Your task to perform on an android device: Open Chrome and go to settings Image 0: 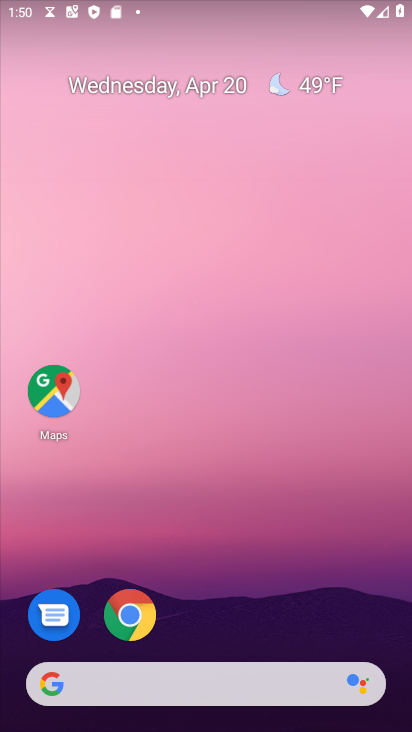
Step 0: click (134, 615)
Your task to perform on an android device: Open Chrome and go to settings Image 1: 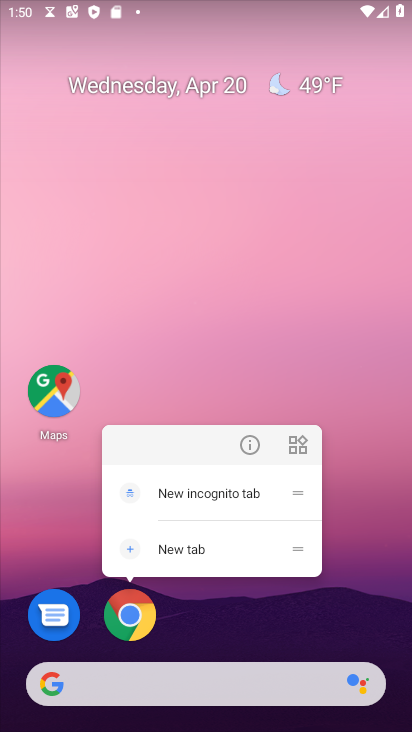
Step 1: click (117, 623)
Your task to perform on an android device: Open Chrome and go to settings Image 2: 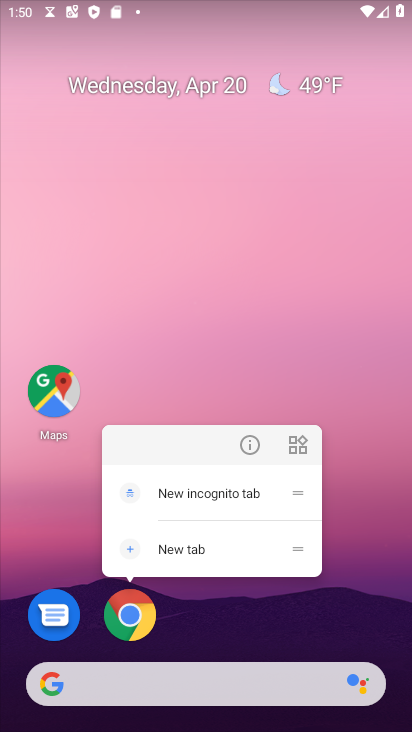
Step 2: click (119, 611)
Your task to perform on an android device: Open Chrome and go to settings Image 3: 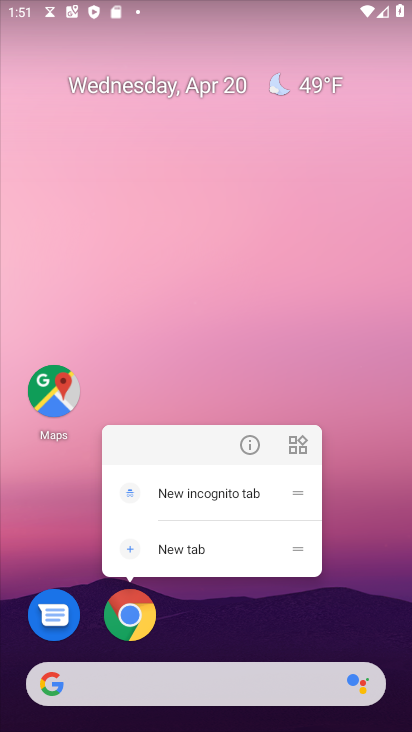
Step 3: click (118, 613)
Your task to perform on an android device: Open Chrome and go to settings Image 4: 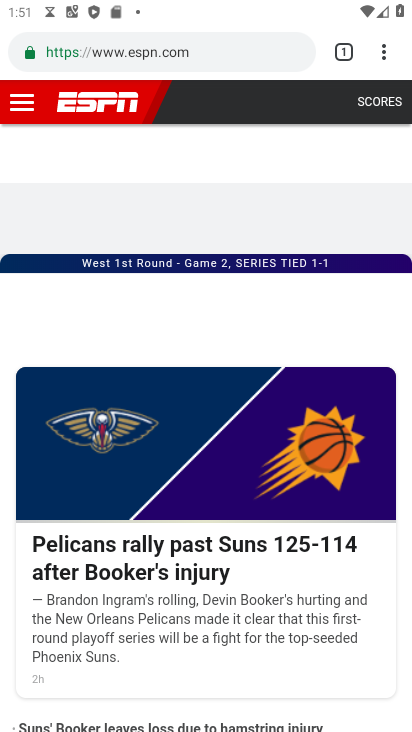
Step 4: click (385, 53)
Your task to perform on an android device: Open Chrome and go to settings Image 5: 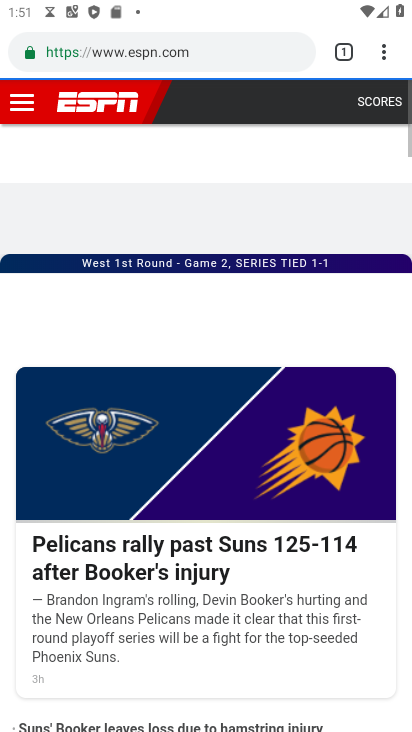
Step 5: click (385, 53)
Your task to perform on an android device: Open Chrome and go to settings Image 6: 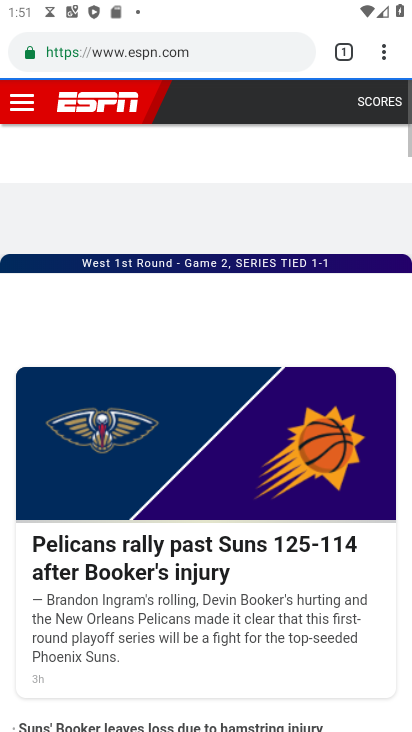
Step 6: click (385, 53)
Your task to perform on an android device: Open Chrome and go to settings Image 7: 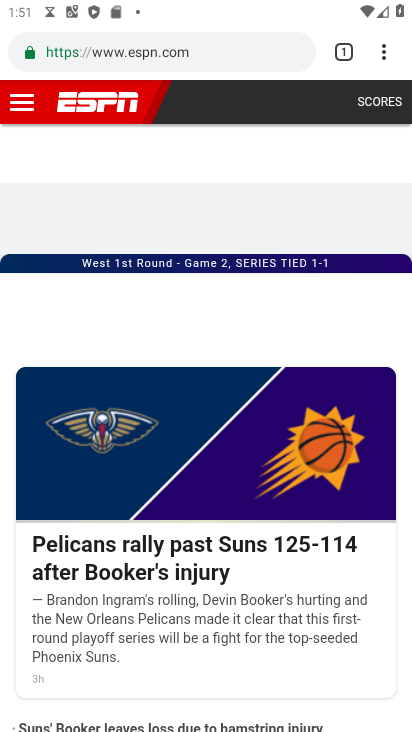
Step 7: click (388, 45)
Your task to perform on an android device: Open Chrome and go to settings Image 8: 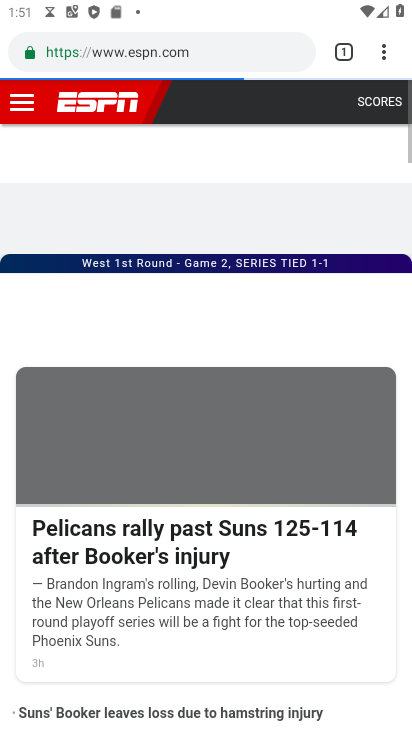
Step 8: click (388, 45)
Your task to perform on an android device: Open Chrome and go to settings Image 9: 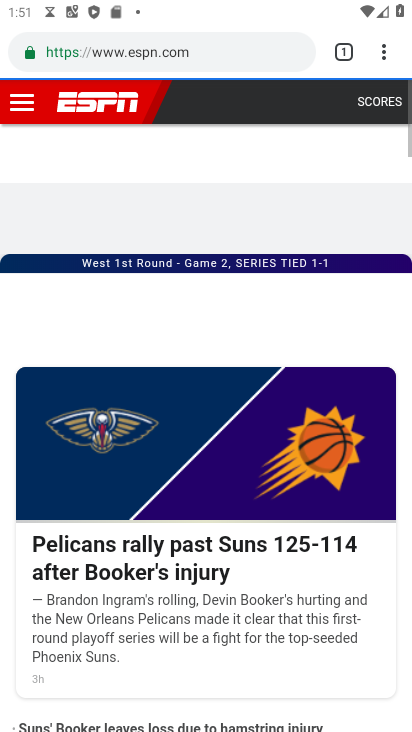
Step 9: click (381, 47)
Your task to perform on an android device: Open Chrome and go to settings Image 10: 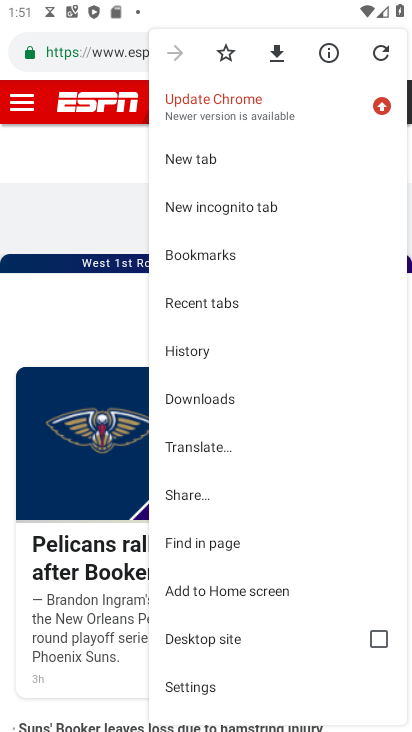
Step 10: click (225, 679)
Your task to perform on an android device: Open Chrome and go to settings Image 11: 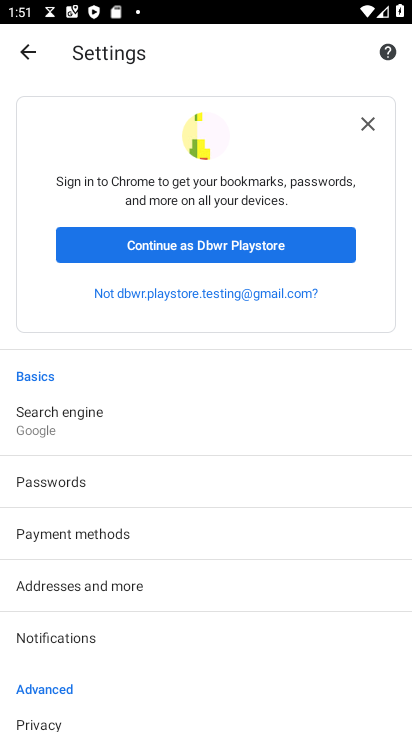
Step 11: task complete